Your task to perform on an android device: Open Google Image 0: 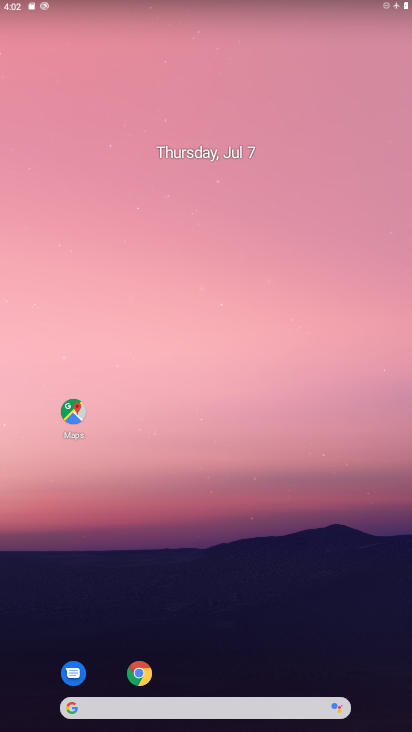
Step 0: drag from (206, 664) to (231, 75)
Your task to perform on an android device: Open Google Image 1: 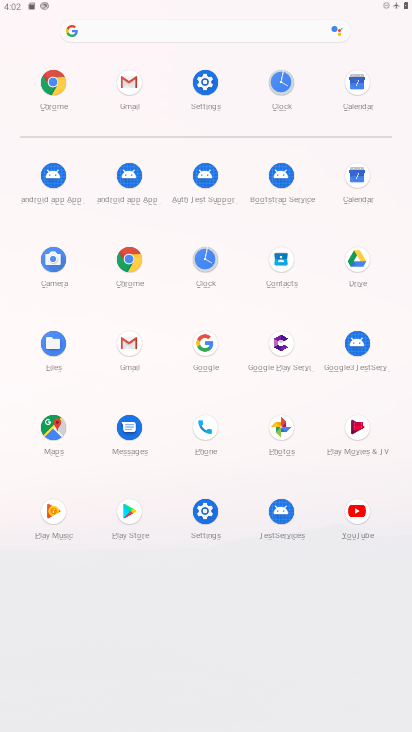
Step 1: press home button
Your task to perform on an android device: Open Google Image 2: 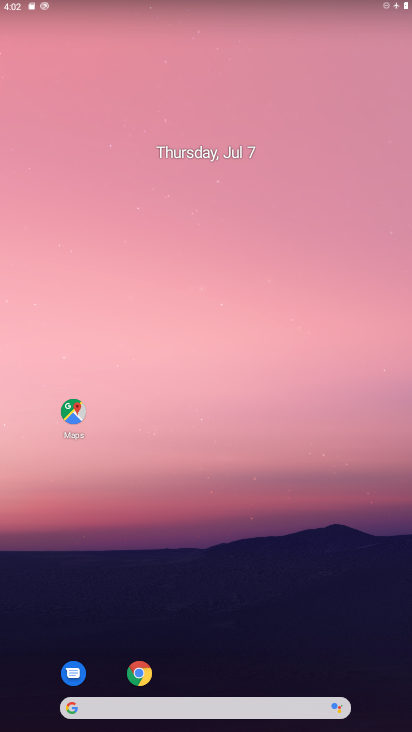
Step 2: drag from (208, 664) to (253, 180)
Your task to perform on an android device: Open Google Image 3: 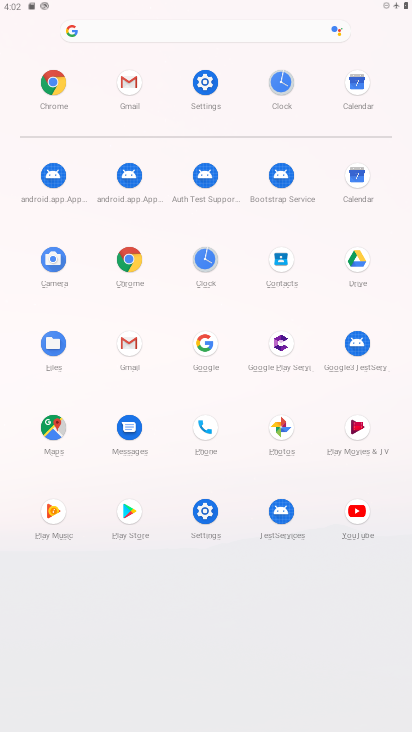
Step 3: click (203, 340)
Your task to perform on an android device: Open Google Image 4: 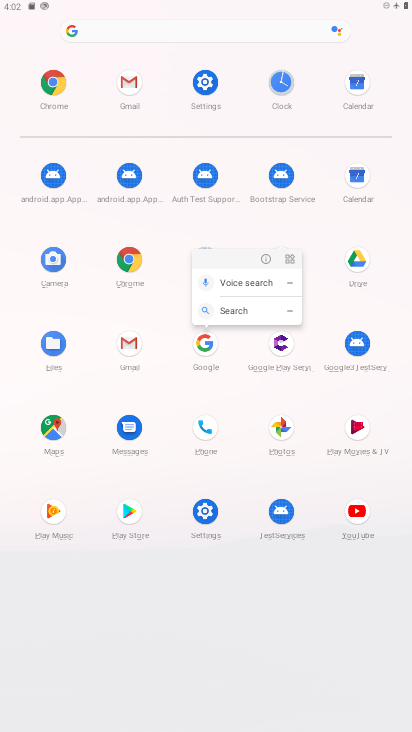
Step 4: click (205, 338)
Your task to perform on an android device: Open Google Image 5: 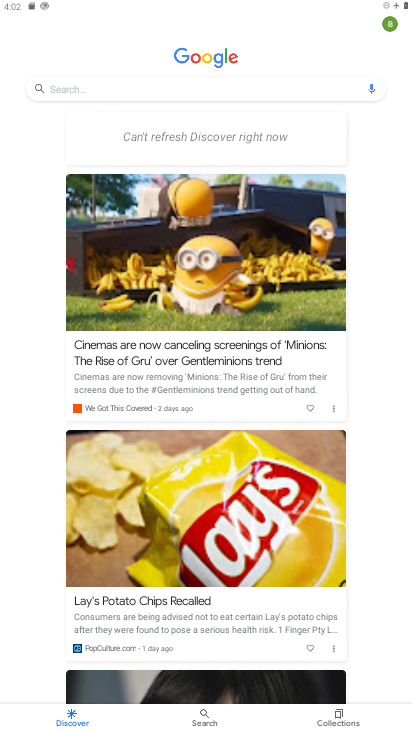
Step 5: click (101, 85)
Your task to perform on an android device: Open Google Image 6: 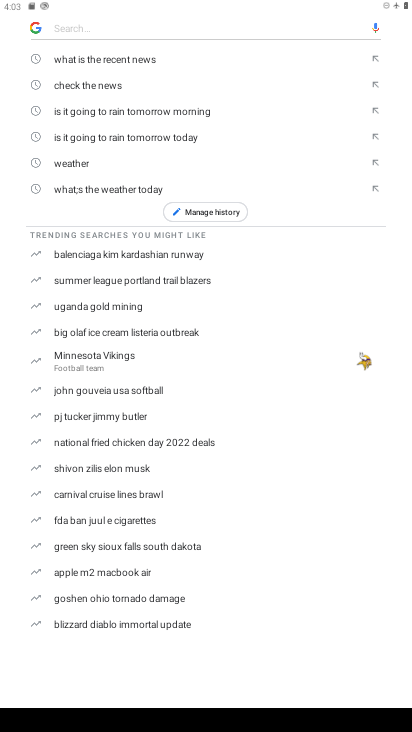
Step 6: task complete